Your task to perform on an android device: turn on javascript in the chrome app Image 0: 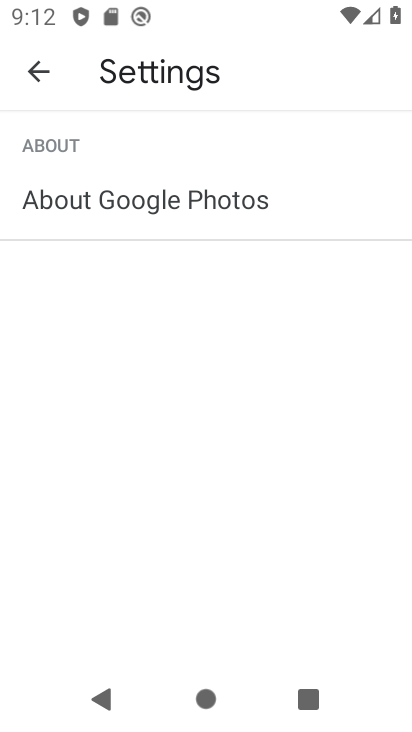
Step 0: click (40, 68)
Your task to perform on an android device: turn on javascript in the chrome app Image 1: 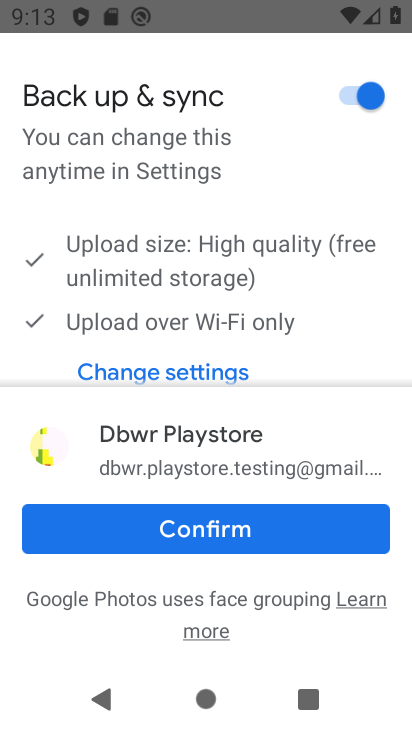
Step 1: press home button
Your task to perform on an android device: turn on javascript in the chrome app Image 2: 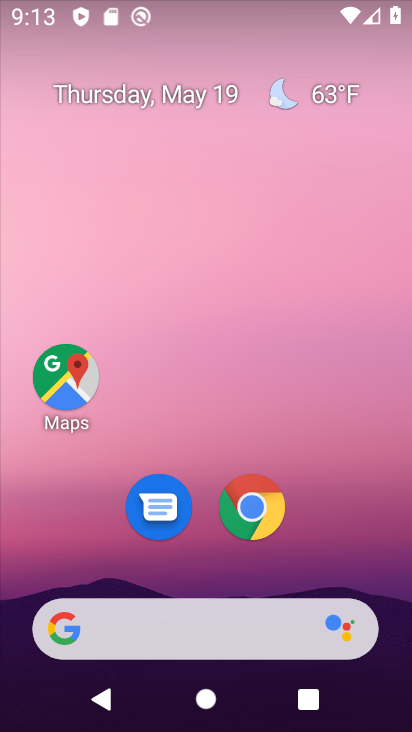
Step 2: click (279, 512)
Your task to perform on an android device: turn on javascript in the chrome app Image 3: 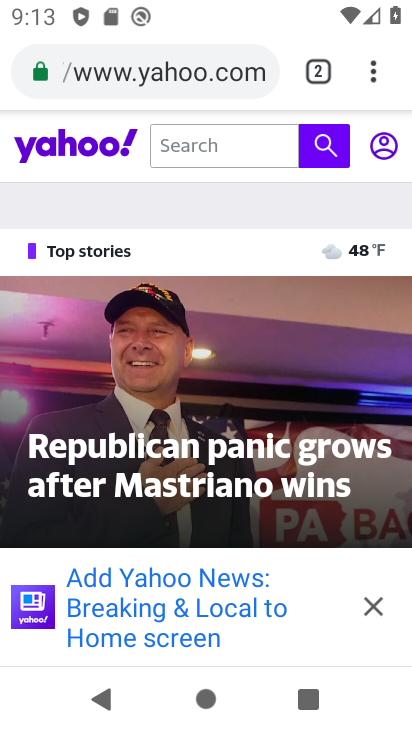
Step 3: click (379, 85)
Your task to perform on an android device: turn on javascript in the chrome app Image 4: 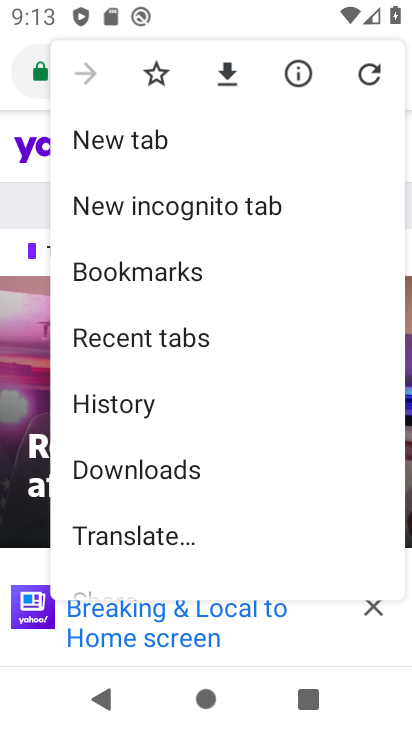
Step 4: drag from (227, 550) to (285, 160)
Your task to perform on an android device: turn on javascript in the chrome app Image 5: 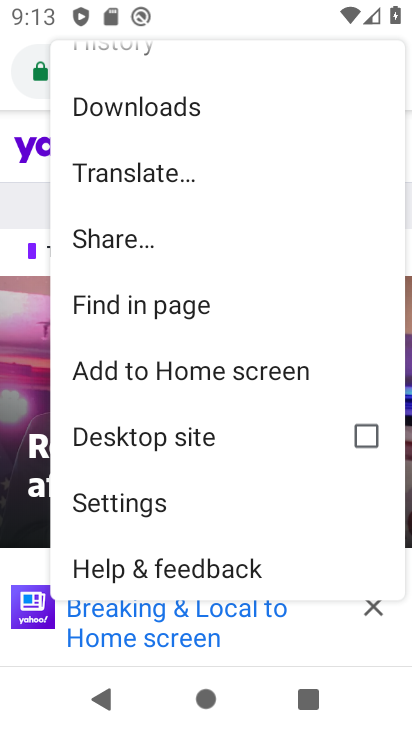
Step 5: click (150, 504)
Your task to perform on an android device: turn on javascript in the chrome app Image 6: 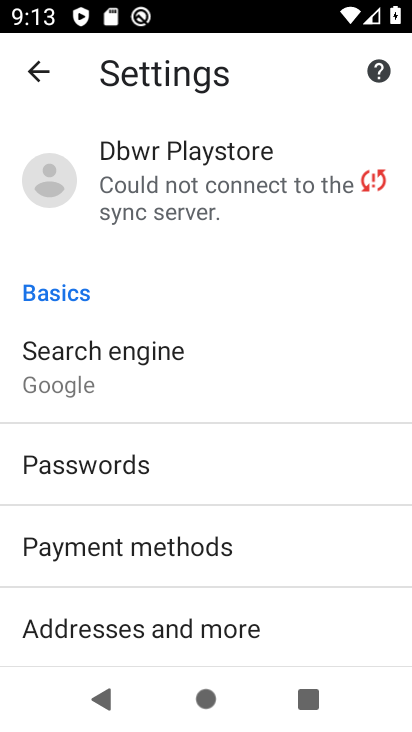
Step 6: drag from (321, 669) to (309, 278)
Your task to perform on an android device: turn on javascript in the chrome app Image 7: 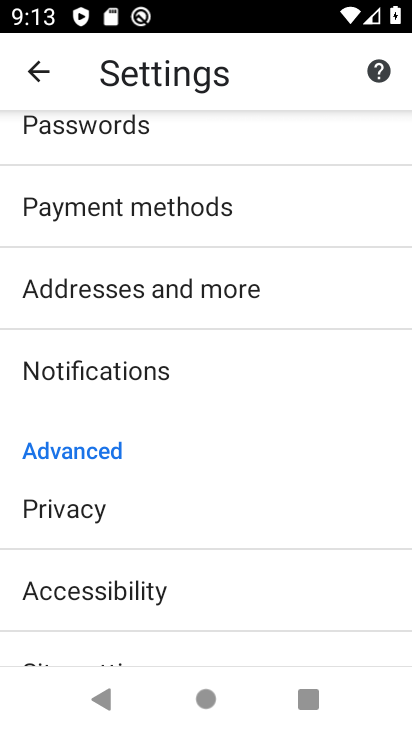
Step 7: drag from (293, 564) to (285, 109)
Your task to perform on an android device: turn on javascript in the chrome app Image 8: 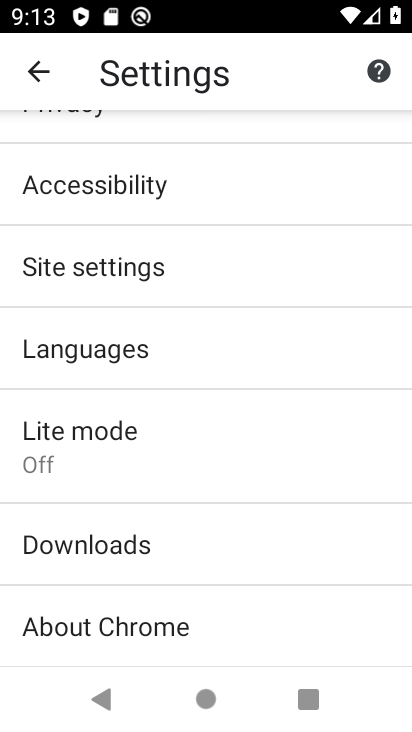
Step 8: click (255, 283)
Your task to perform on an android device: turn on javascript in the chrome app Image 9: 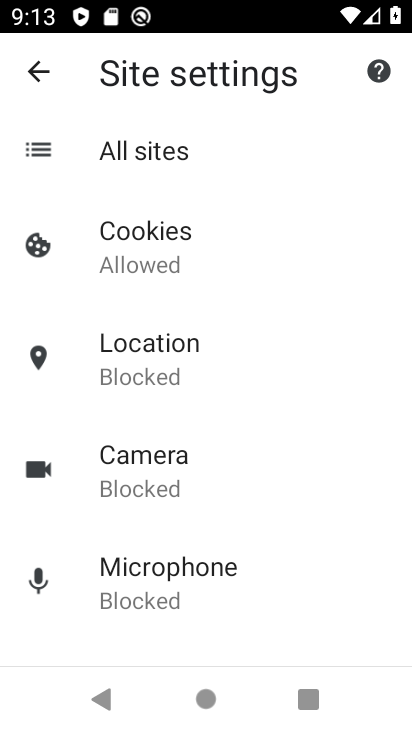
Step 9: drag from (236, 545) to (245, 214)
Your task to perform on an android device: turn on javascript in the chrome app Image 10: 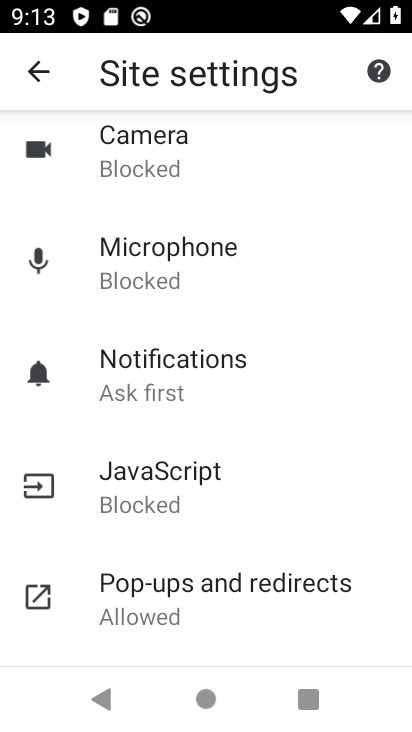
Step 10: click (220, 489)
Your task to perform on an android device: turn on javascript in the chrome app Image 11: 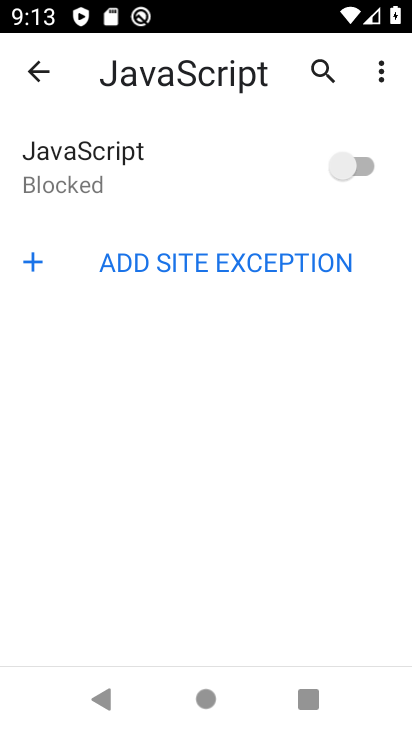
Step 11: click (351, 190)
Your task to perform on an android device: turn on javascript in the chrome app Image 12: 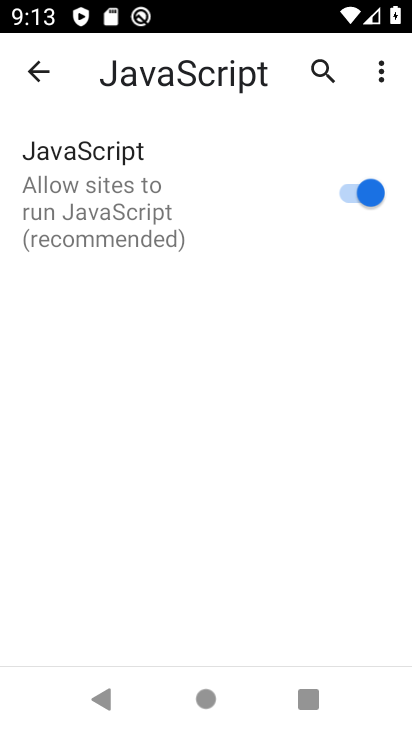
Step 12: task complete